Your task to perform on an android device: refresh tabs in the chrome app Image 0: 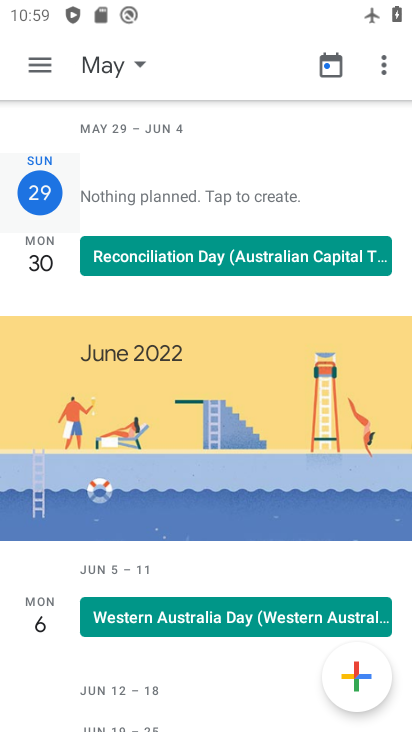
Step 0: press home button
Your task to perform on an android device: refresh tabs in the chrome app Image 1: 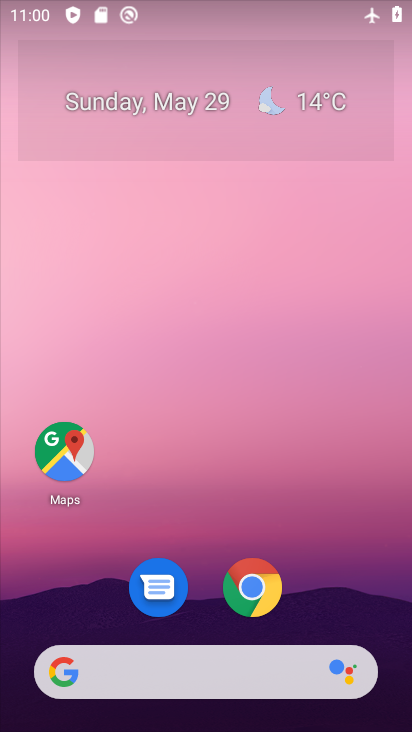
Step 1: drag from (376, 542) to (356, 114)
Your task to perform on an android device: refresh tabs in the chrome app Image 2: 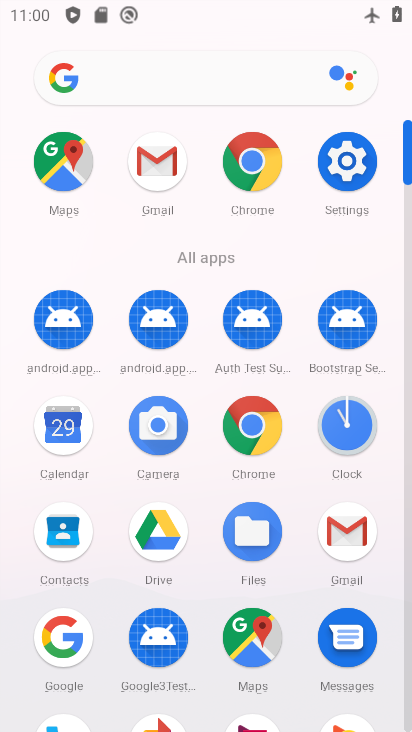
Step 2: click (253, 451)
Your task to perform on an android device: refresh tabs in the chrome app Image 3: 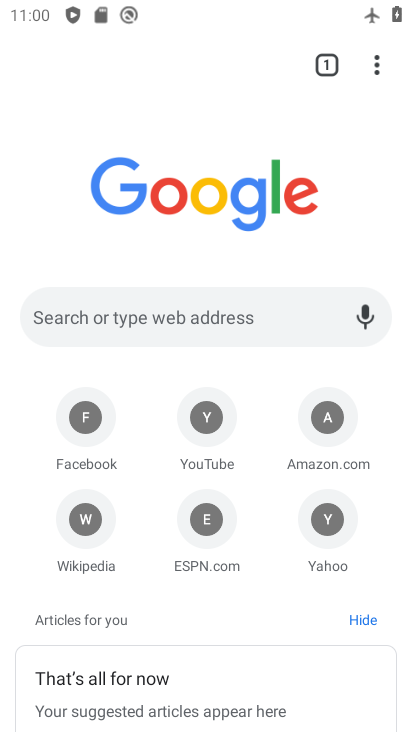
Step 3: click (377, 71)
Your task to perform on an android device: refresh tabs in the chrome app Image 4: 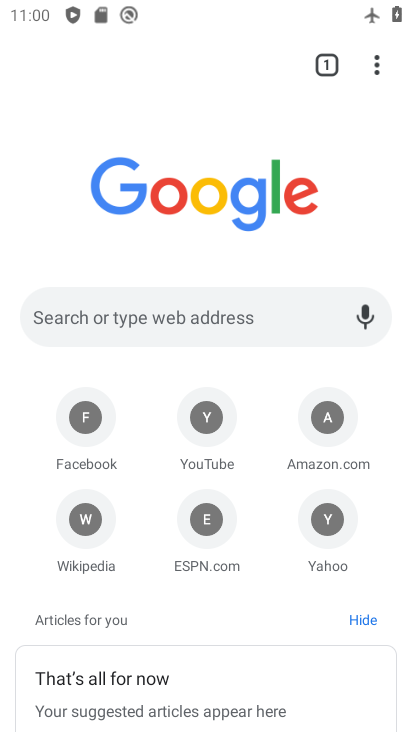
Step 4: task complete